Your task to perform on an android device: Open the web browser Image 0: 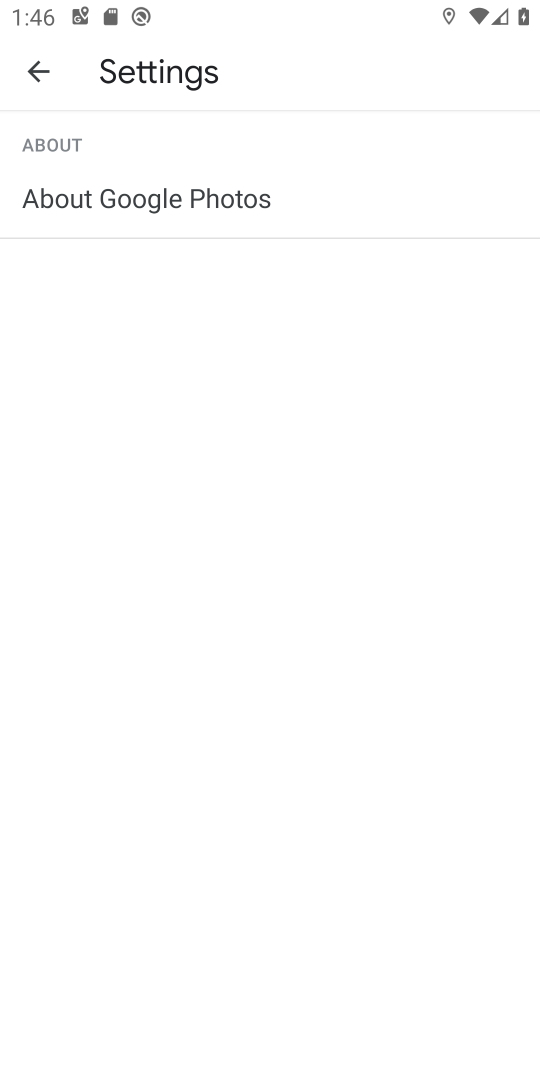
Step 0: press home button
Your task to perform on an android device: Open the web browser Image 1: 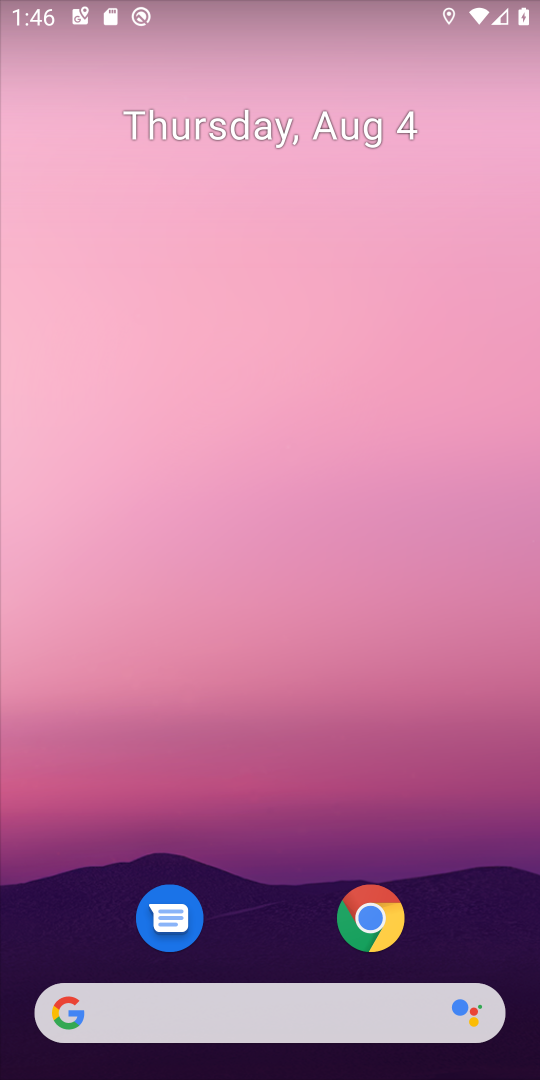
Step 1: click (385, 908)
Your task to perform on an android device: Open the web browser Image 2: 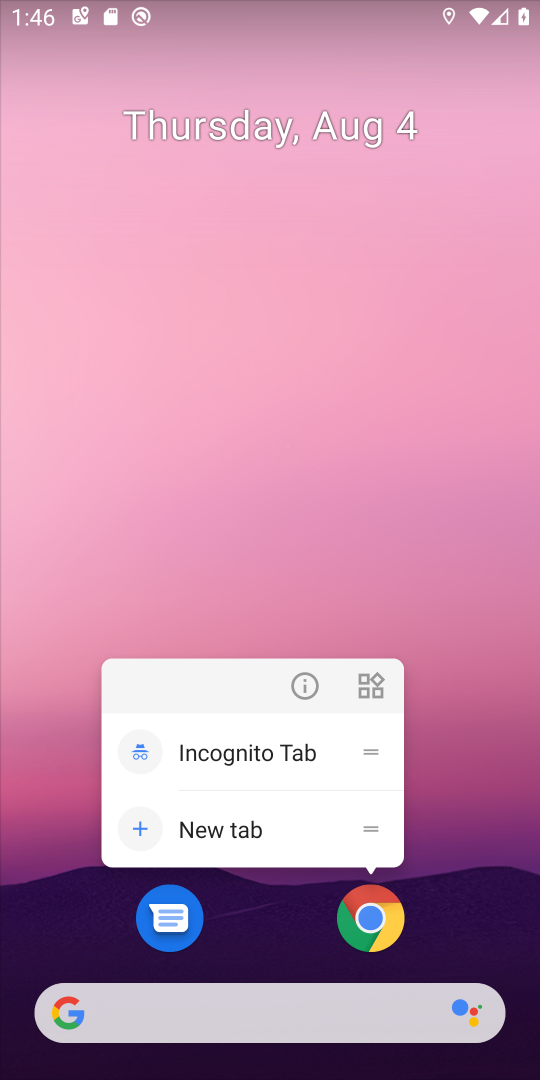
Step 2: click (381, 904)
Your task to perform on an android device: Open the web browser Image 3: 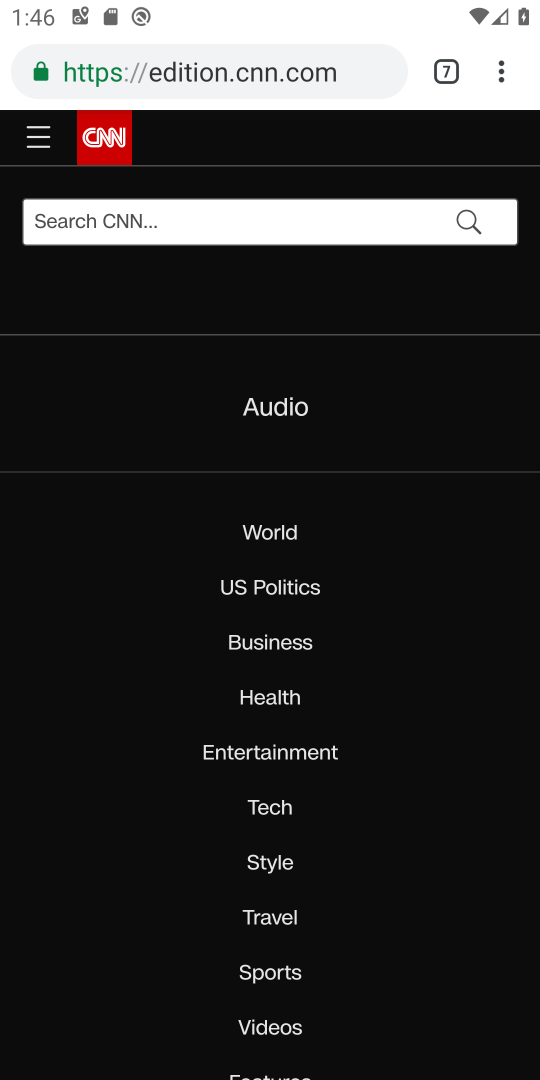
Step 3: task complete